Your task to perform on an android device: toggle improve location accuracy Image 0: 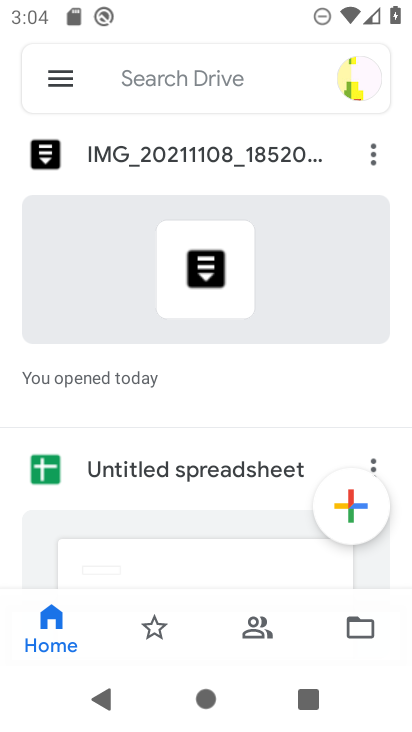
Step 0: press home button
Your task to perform on an android device: toggle improve location accuracy Image 1: 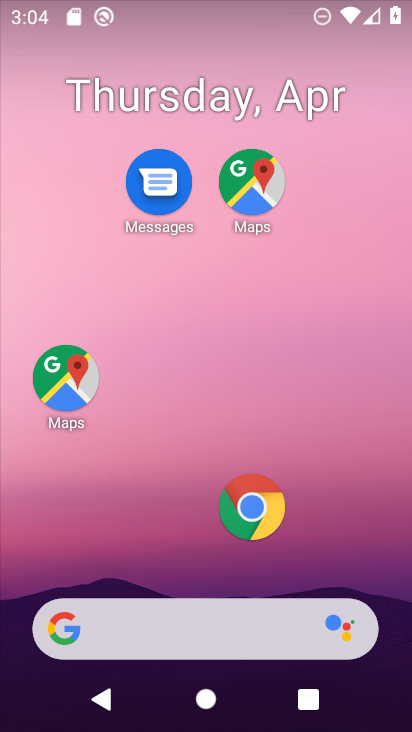
Step 1: drag from (193, 566) to (224, 2)
Your task to perform on an android device: toggle improve location accuracy Image 2: 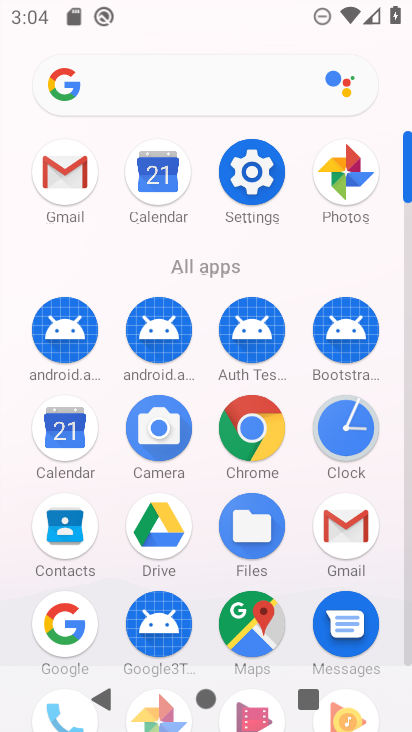
Step 2: click (241, 160)
Your task to perform on an android device: toggle improve location accuracy Image 3: 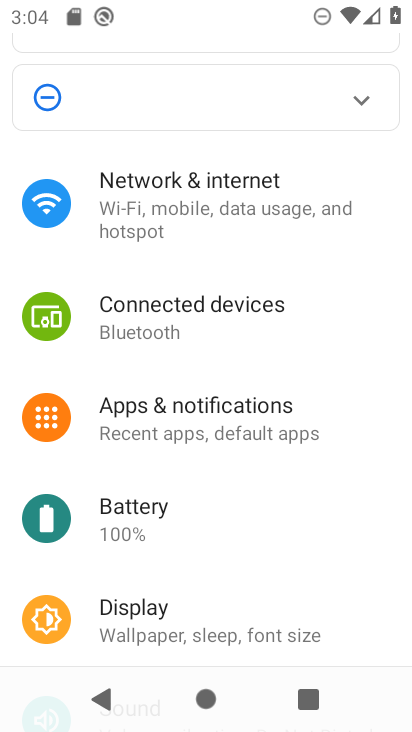
Step 3: drag from (151, 539) to (189, 321)
Your task to perform on an android device: toggle improve location accuracy Image 4: 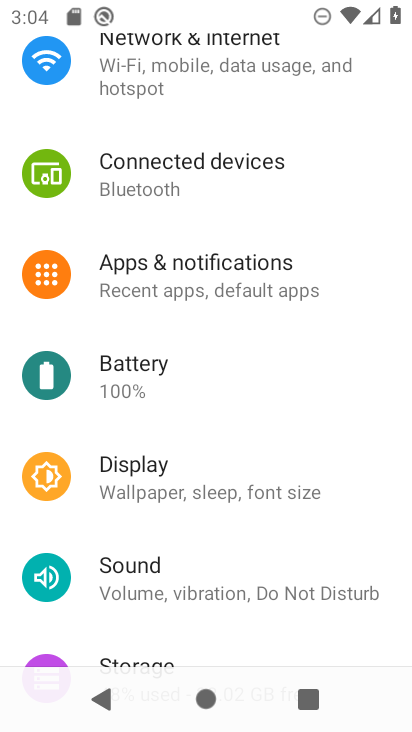
Step 4: drag from (161, 558) to (240, 232)
Your task to perform on an android device: toggle improve location accuracy Image 5: 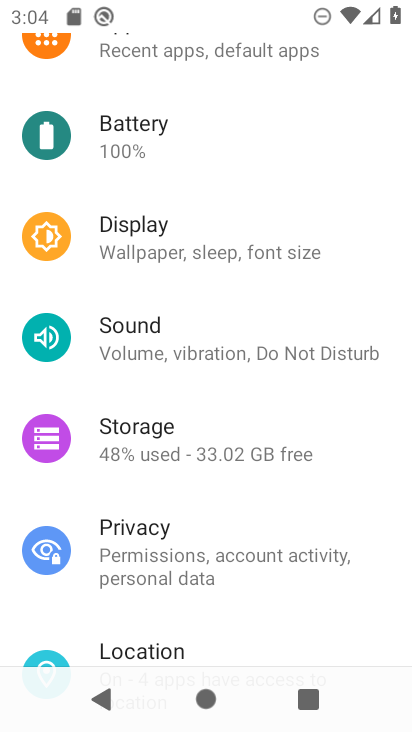
Step 5: drag from (132, 624) to (185, 433)
Your task to perform on an android device: toggle improve location accuracy Image 6: 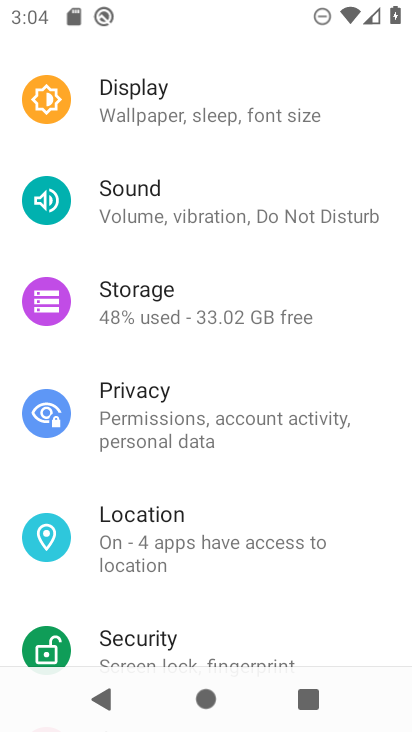
Step 6: click (164, 541)
Your task to perform on an android device: toggle improve location accuracy Image 7: 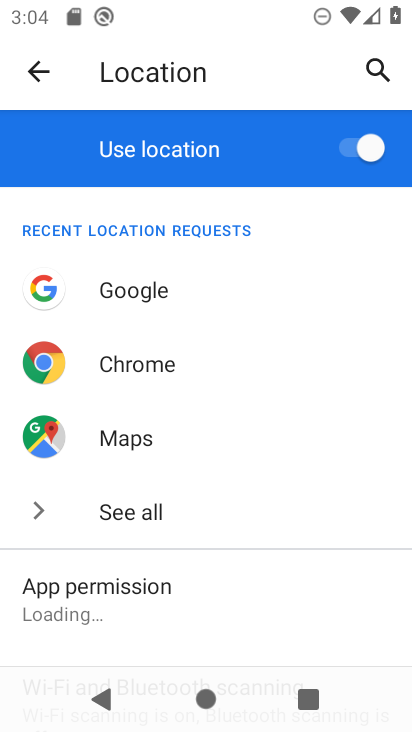
Step 7: drag from (135, 577) to (240, 191)
Your task to perform on an android device: toggle improve location accuracy Image 8: 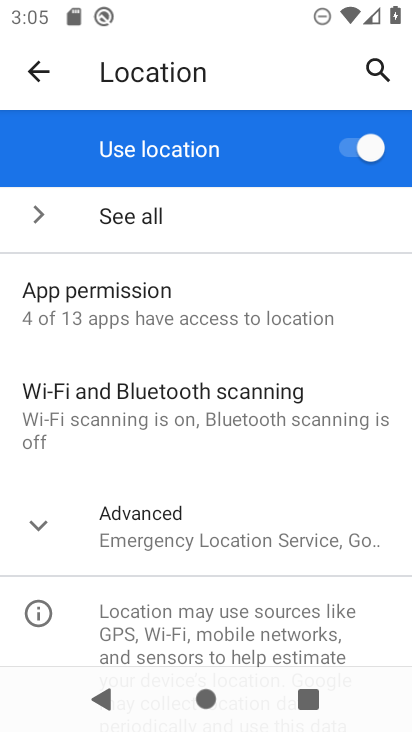
Step 8: click (180, 510)
Your task to perform on an android device: toggle improve location accuracy Image 9: 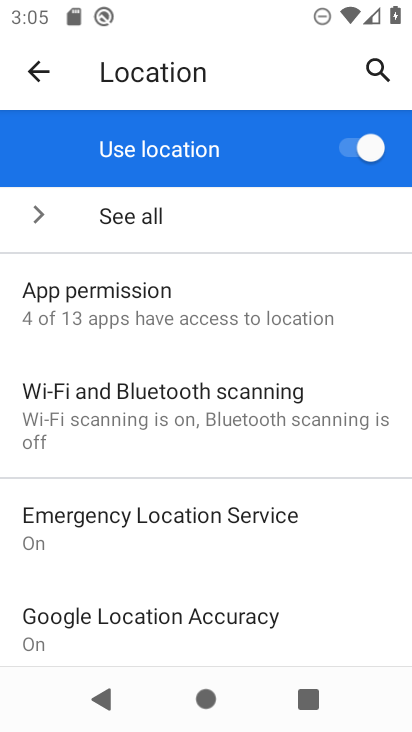
Step 9: drag from (135, 538) to (184, 358)
Your task to perform on an android device: toggle improve location accuracy Image 10: 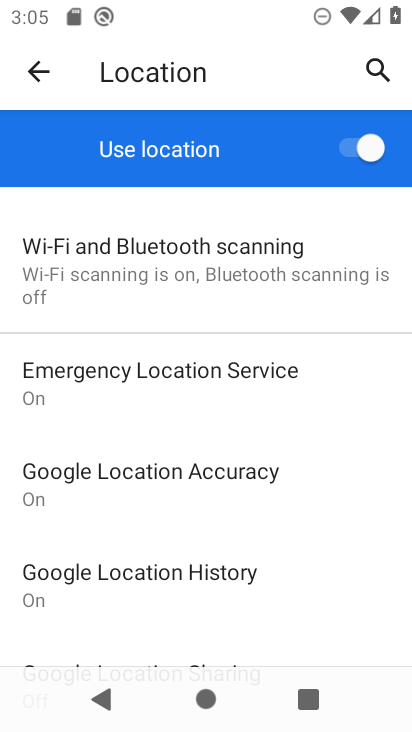
Step 10: click (142, 476)
Your task to perform on an android device: toggle improve location accuracy Image 11: 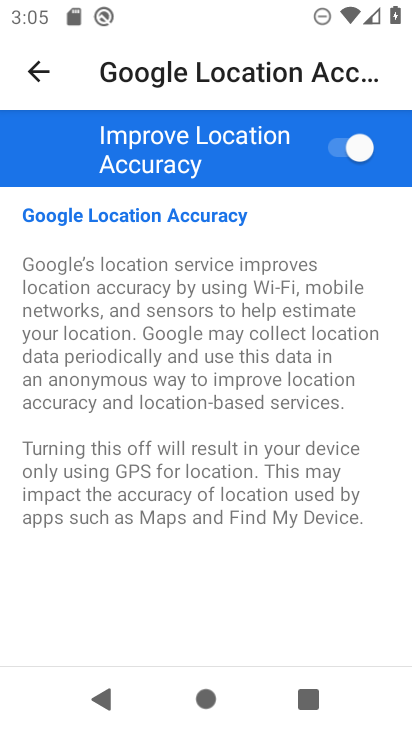
Step 11: click (344, 139)
Your task to perform on an android device: toggle improve location accuracy Image 12: 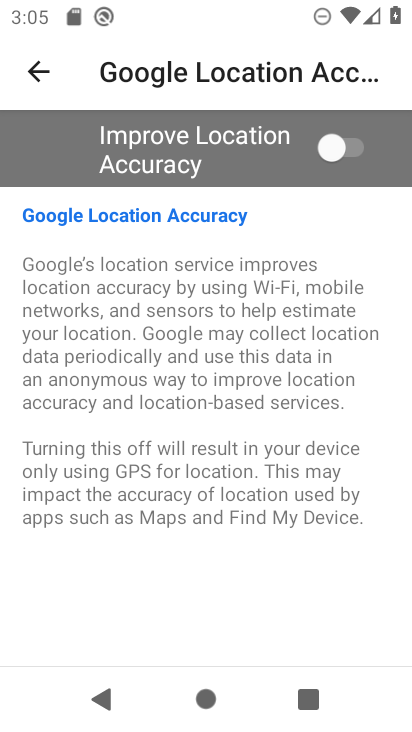
Step 12: task complete